Your task to perform on an android device: Open Reddit.com Image 0: 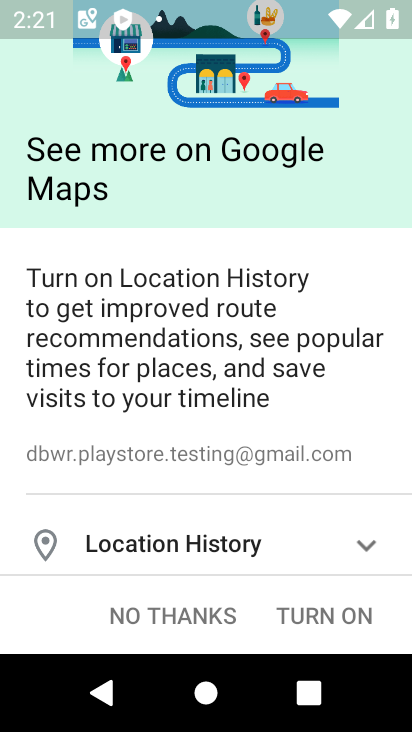
Step 0: press home button
Your task to perform on an android device: Open Reddit.com Image 1: 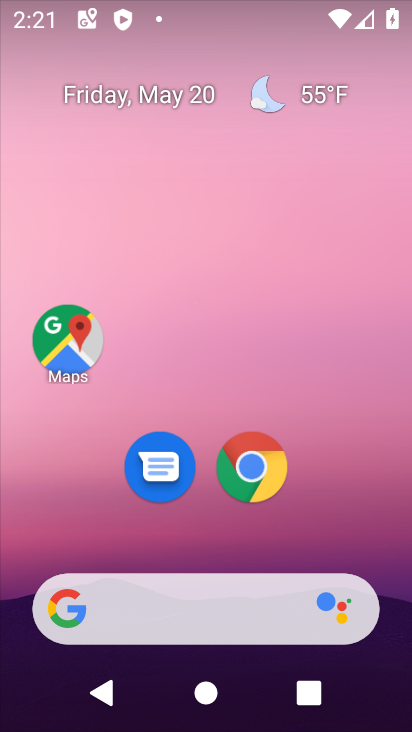
Step 1: click (254, 479)
Your task to perform on an android device: Open Reddit.com Image 2: 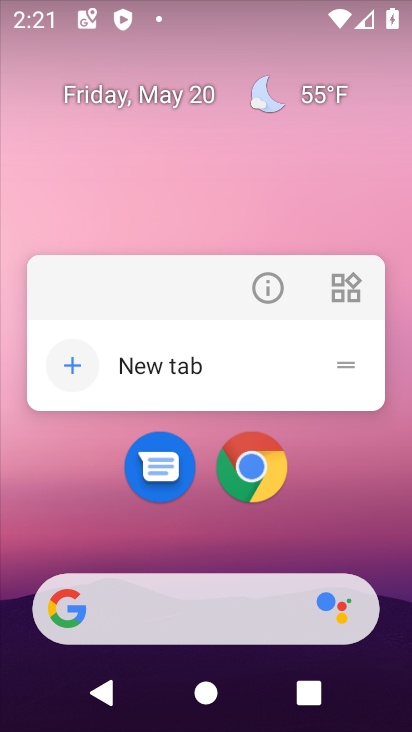
Step 2: click (253, 478)
Your task to perform on an android device: Open Reddit.com Image 3: 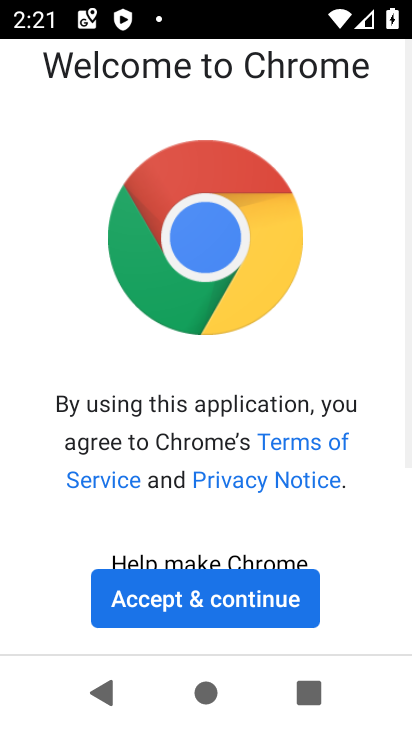
Step 3: click (138, 612)
Your task to perform on an android device: Open Reddit.com Image 4: 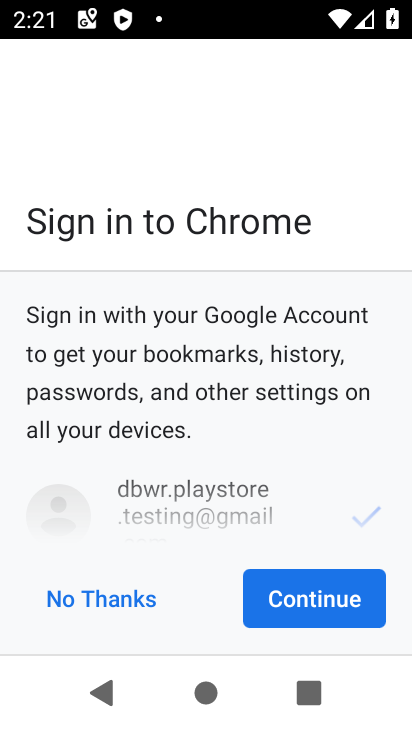
Step 4: click (298, 616)
Your task to perform on an android device: Open Reddit.com Image 5: 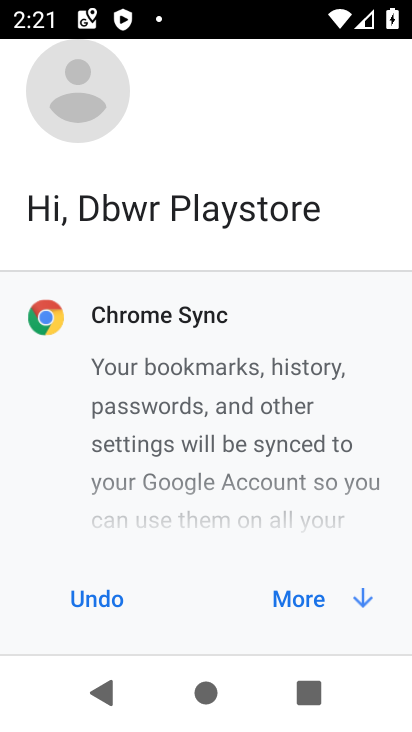
Step 5: click (294, 594)
Your task to perform on an android device: Open Reddit.com Image 6: 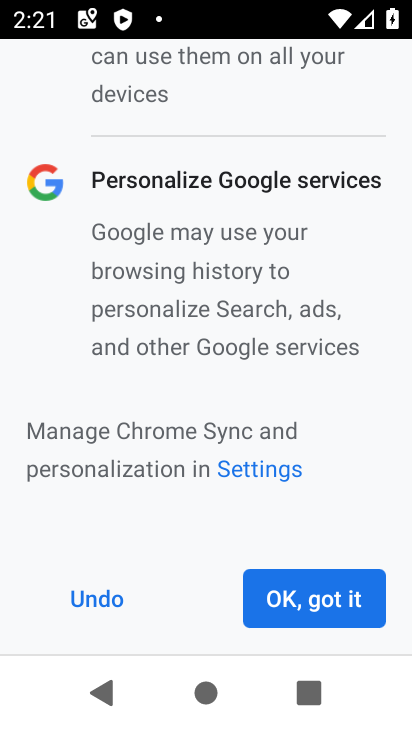
Step 6: click (294, 594)
Your task to perform on an android device: Open Reddit.com Image 7: 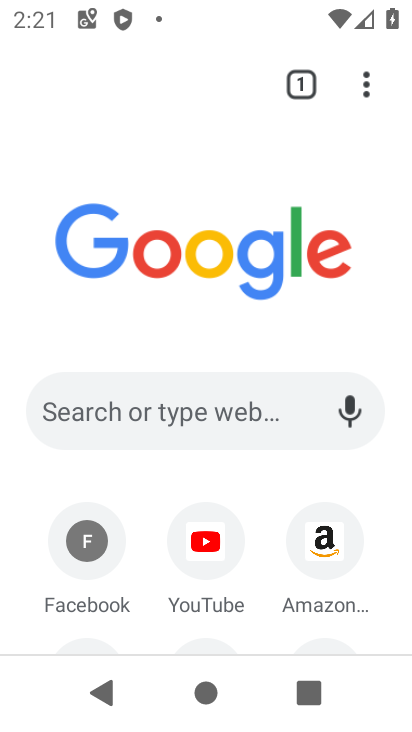
Step 7: click (149, 405)
Your task to perform on an android device: Open Reddit.com Image 8: 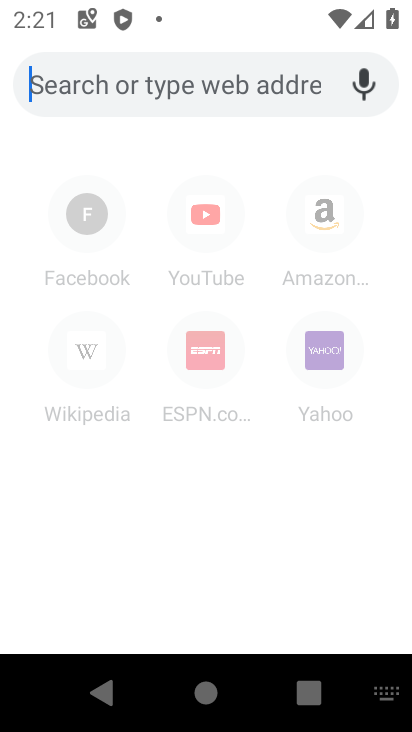
Step 8: type "reddit.com"
Your task to perform on an android device: Open Reddit.com Image 9: 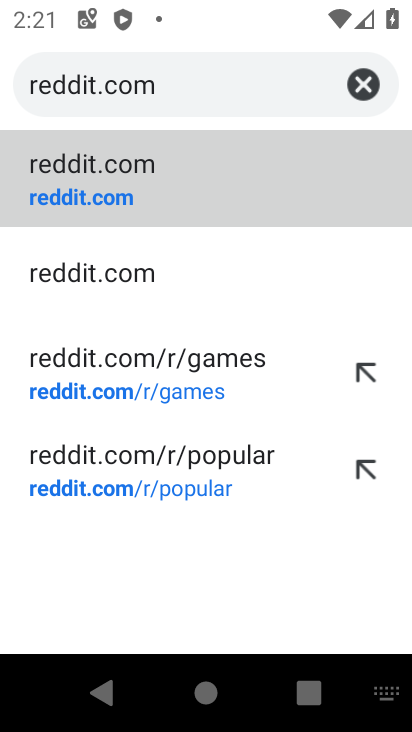
Step 9: click (42, 195)
Your task to perform on an android device: Open Reddit.com Image 10: 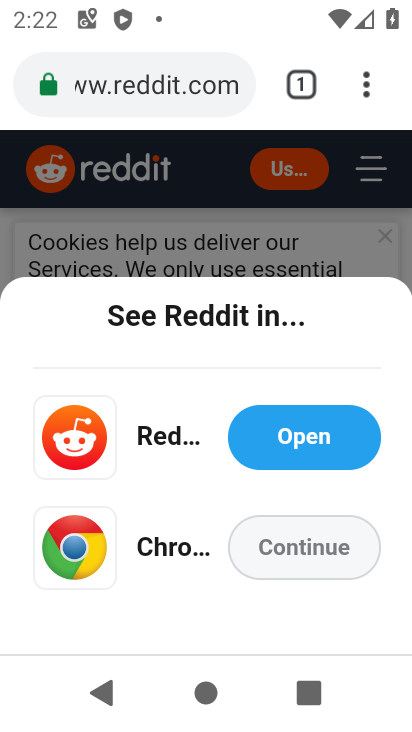
Step 10: task complete